Your task to perform on an android device: check android version Image 0: 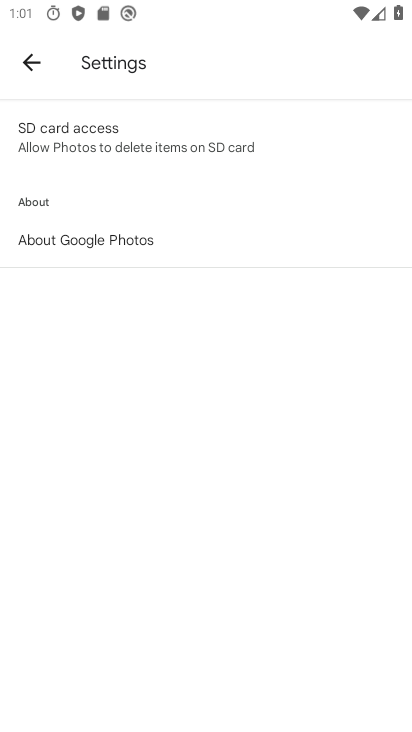
Step 0: click (34, 69)
Your task to perform on an android device: check android version Image 1: 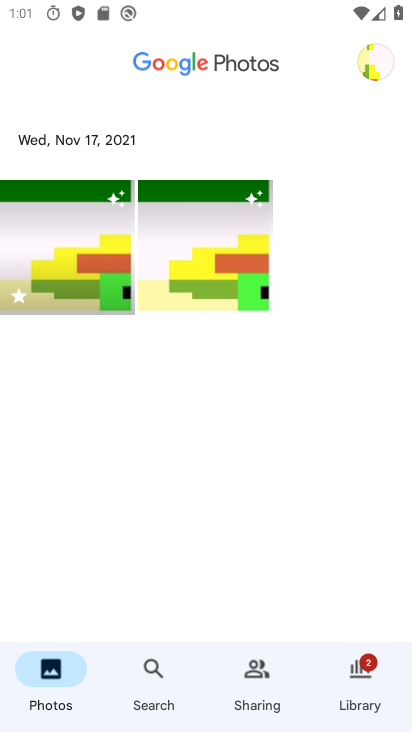
Step 1: press home button
Your task to perform on an android device: check android version Image 2: 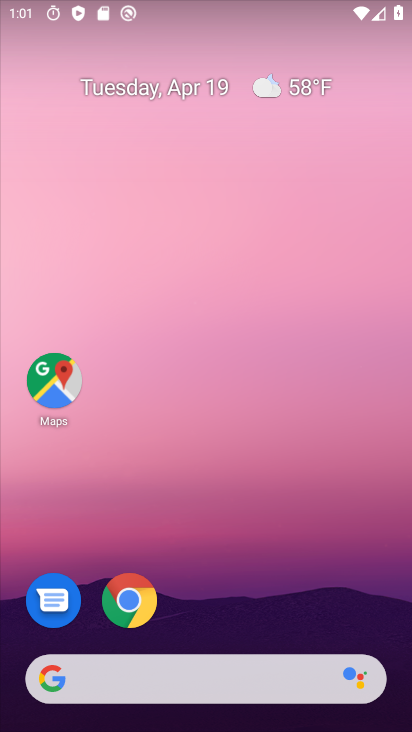
Step 2: drag from (240, 695) to (243, 278)
Your task to perform on an android device: check android version Image 3: 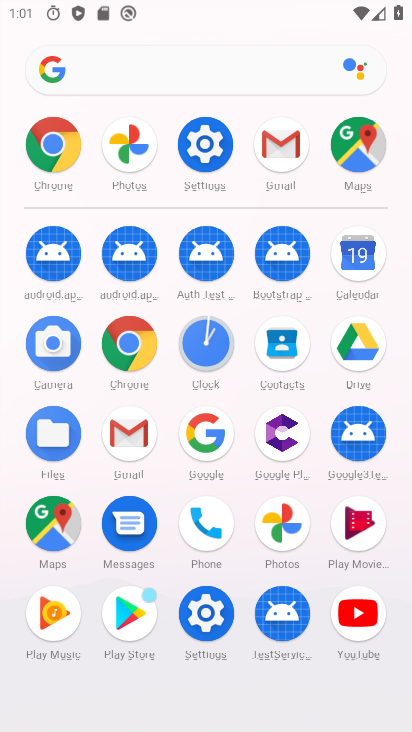
Step 3: click (189, 139)
Your task to perform on an android device: check android version Image 4: 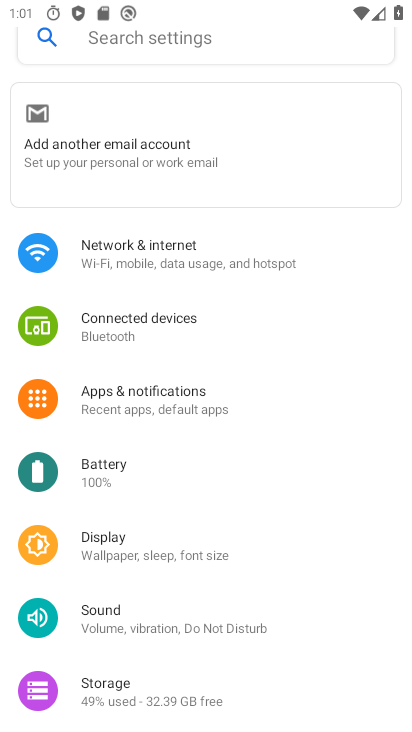
Step 4: click (160, 51)
Your task to perform on an android device: check android version Image 5: 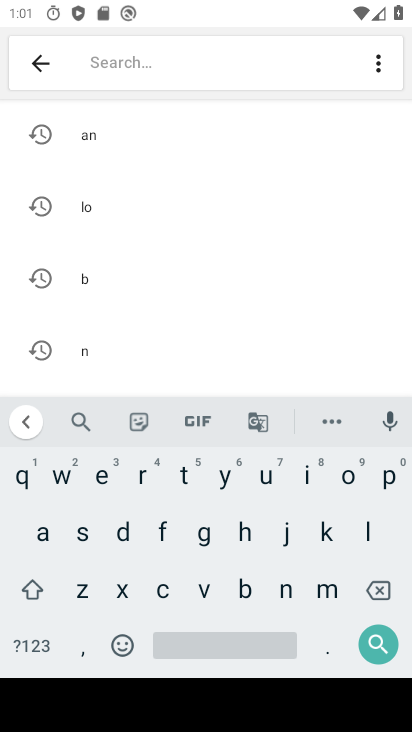
Step 5: click (113, 147)
Your task to perform on an android device: check android version Image 6: 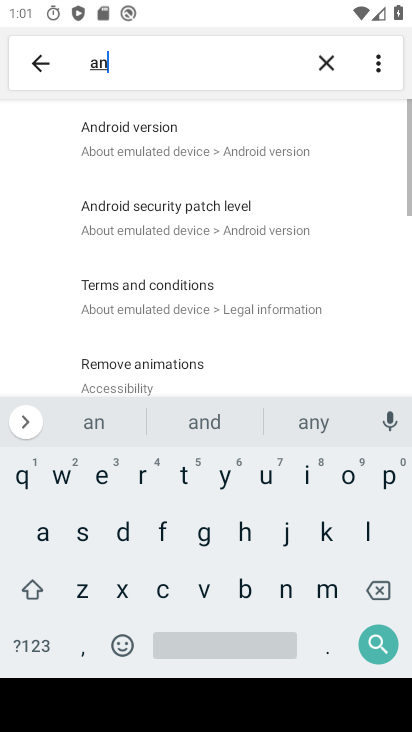
Step 6: click (112, 130)
Your task to perform on an android device: check android version Image 7: 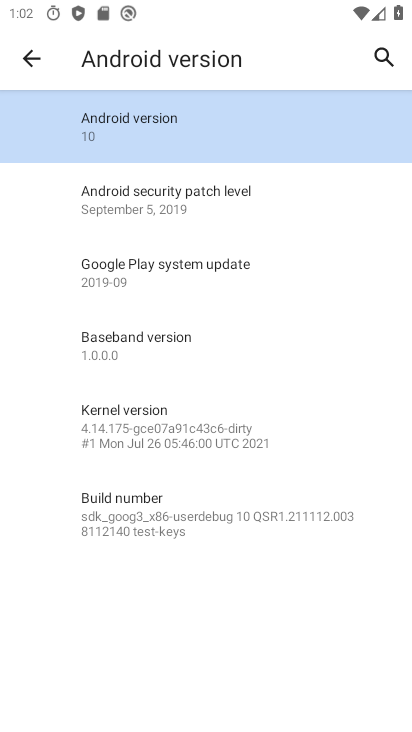
Step 7: task complete